Your task to perform on an android device: Open Google Image 0: 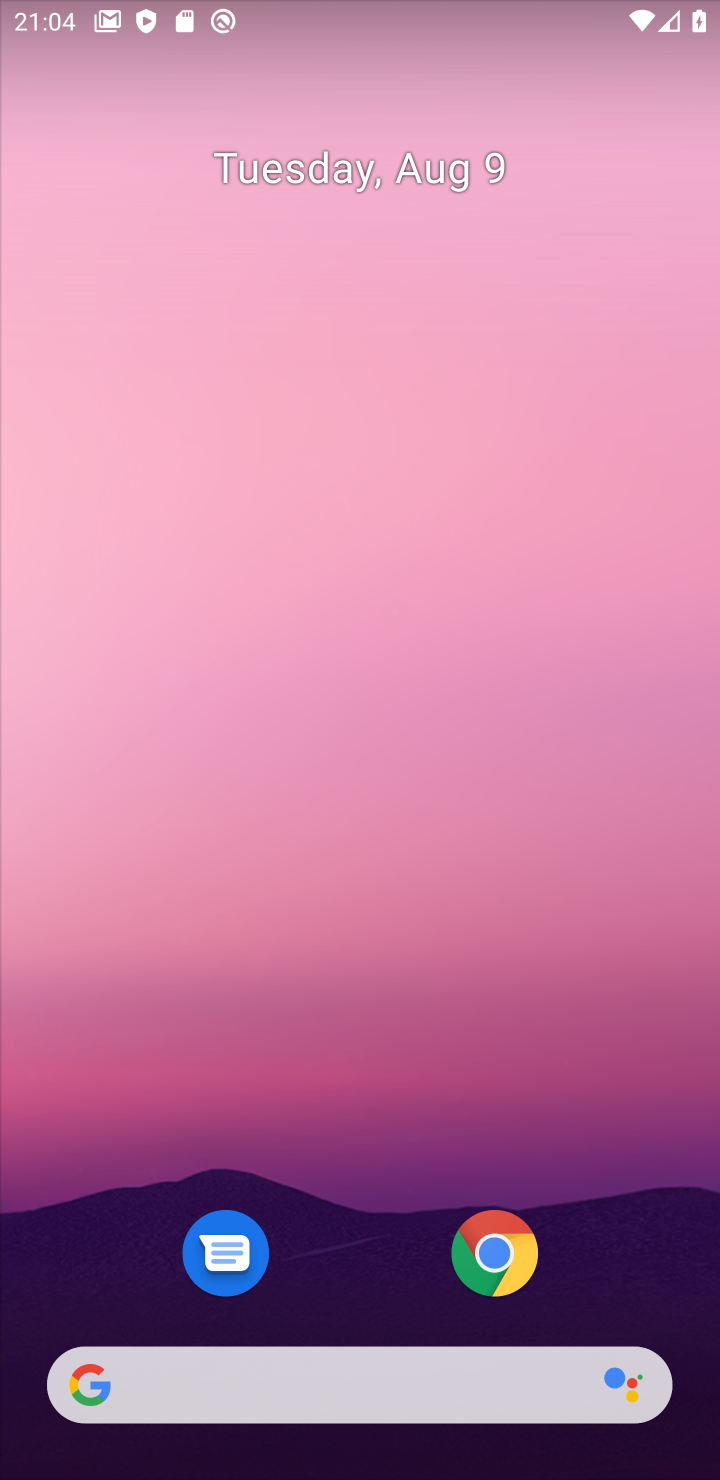
Step 0: drag from (363, 1262) to (444, 193)
Your task to perform on an android device: Open Google Image 1: 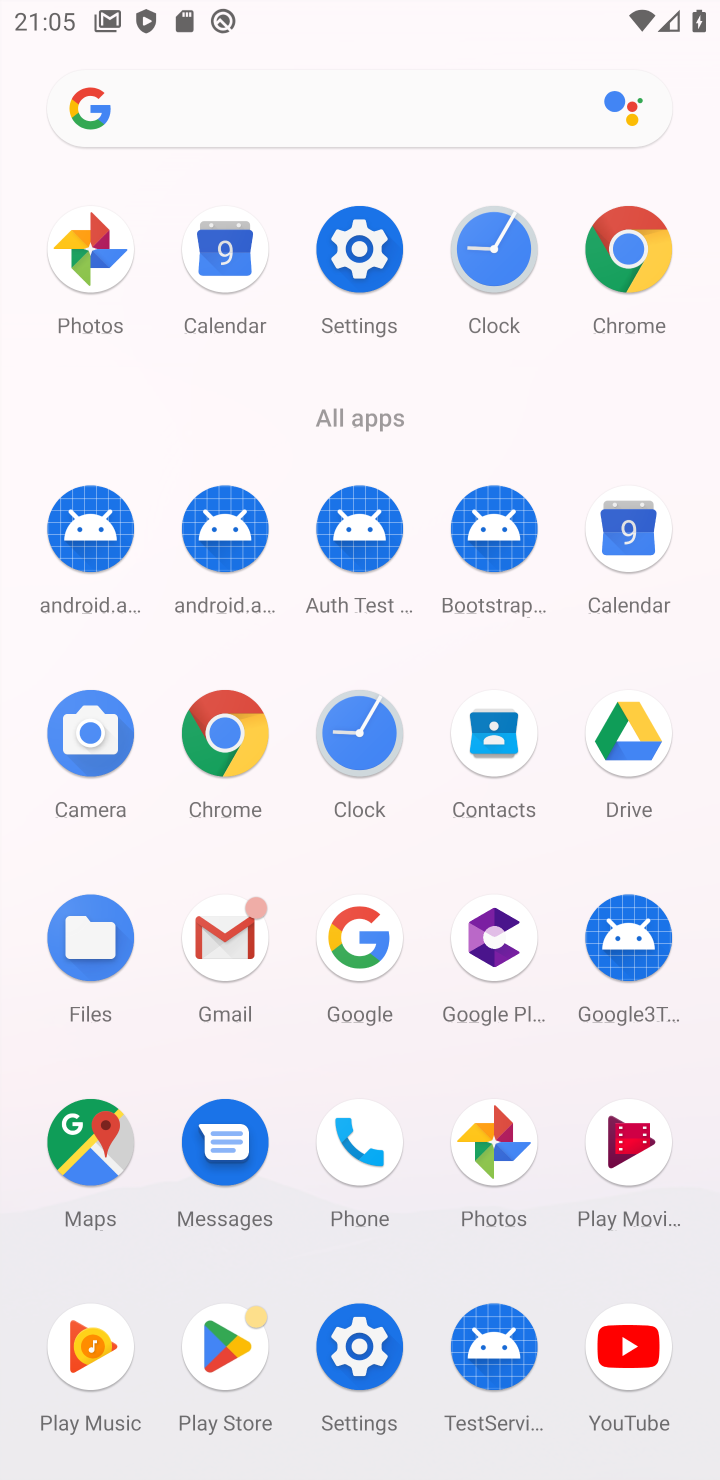
Step 1: click (360, 929)
Your task to perform on an android device: Open Google Image 2: 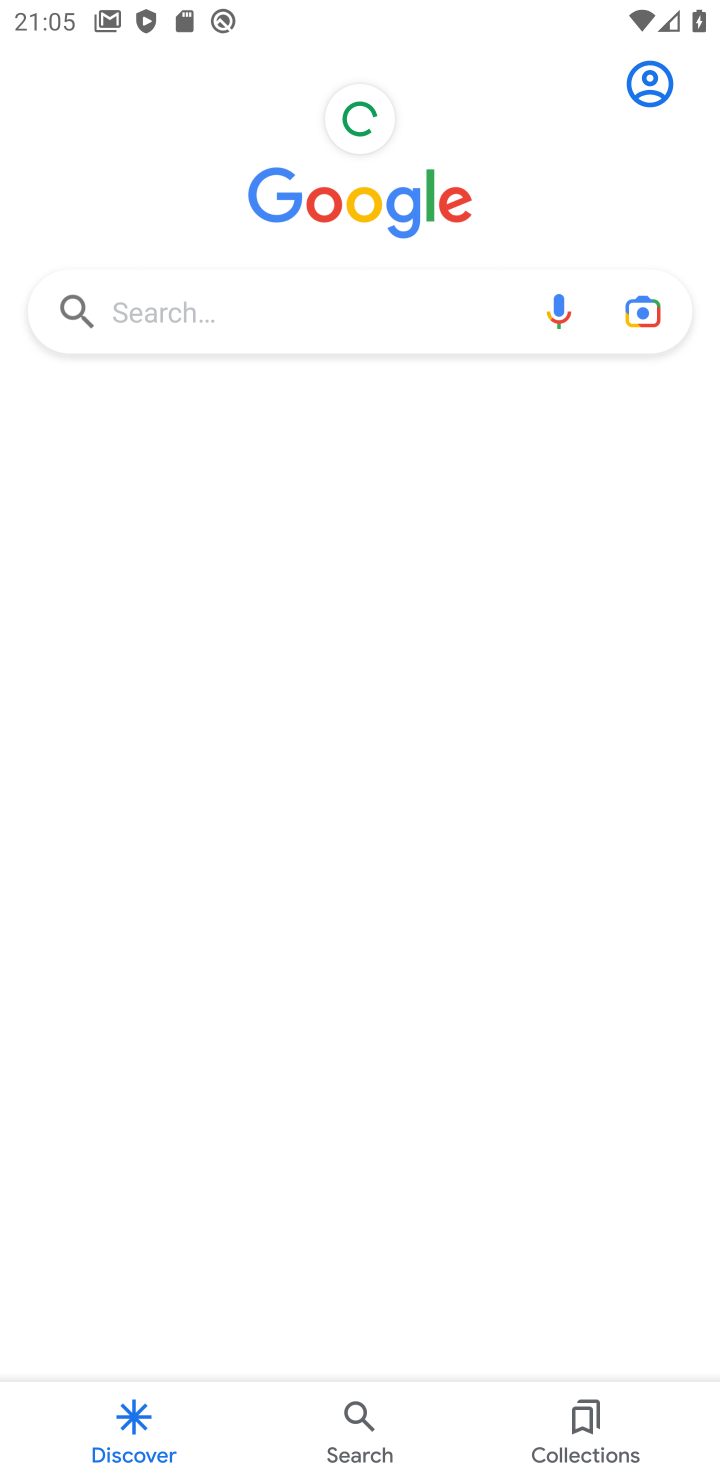
Step 2: task complete